Your task to perform on an android device: change notification settings in the gmail app Image 0: 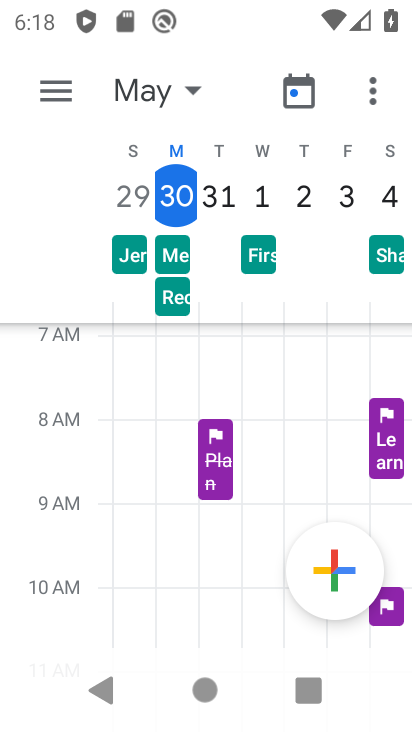
Step 0: press home button
Your task to perform on an android device: change notification settings in the gmail app Image 1: 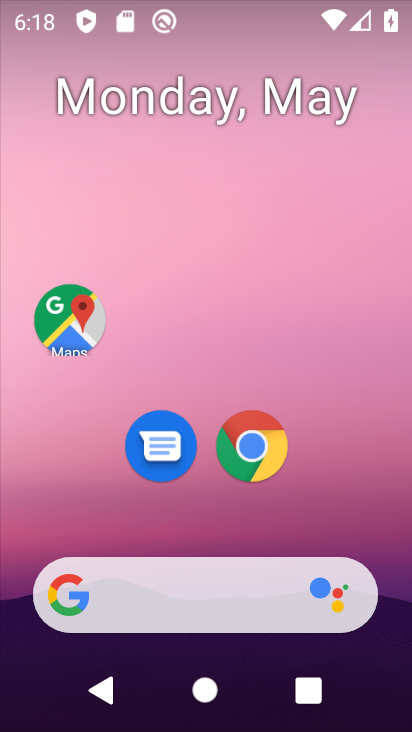
Step 1: drag from (322, 472) to (201, 33)
Your task to perform on an android device: change notification settings in the gmail app Image 2: 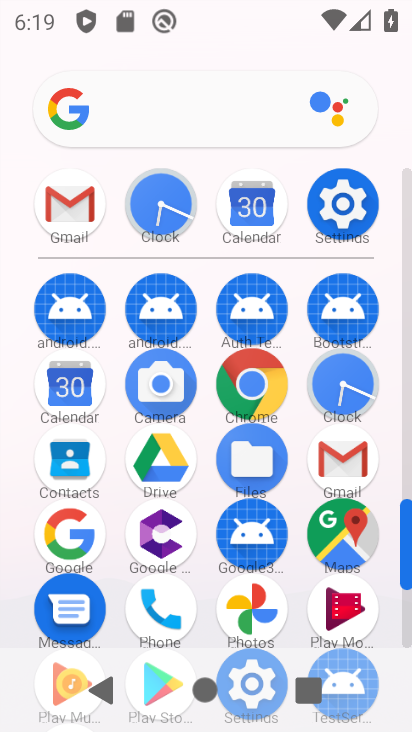
Step 2: click (73, 203)
Your task to perform on an android device: change notification settings in the gmail app Image 3: 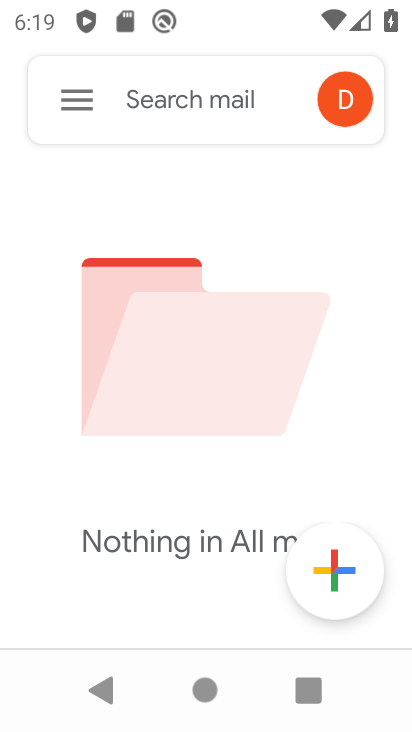
Step 3: click (64, 98)
Your task to perform on an android device: change notification settings in the gmail app Image 4: 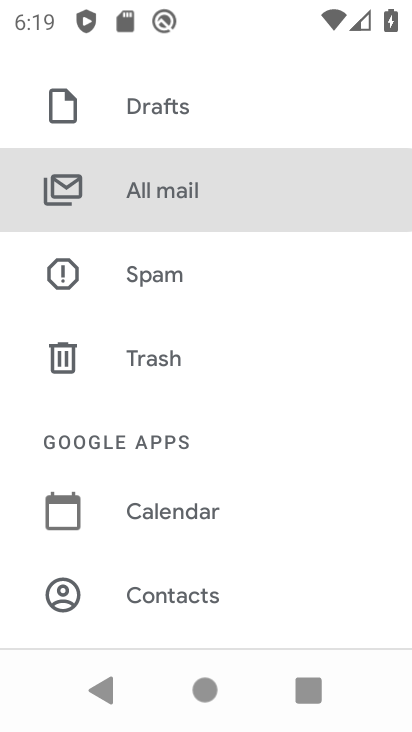
Step 4: drag from (240, 560) to (271, 135)
Your task to perform on an android device: change notification settings in the gmail app Image 5: 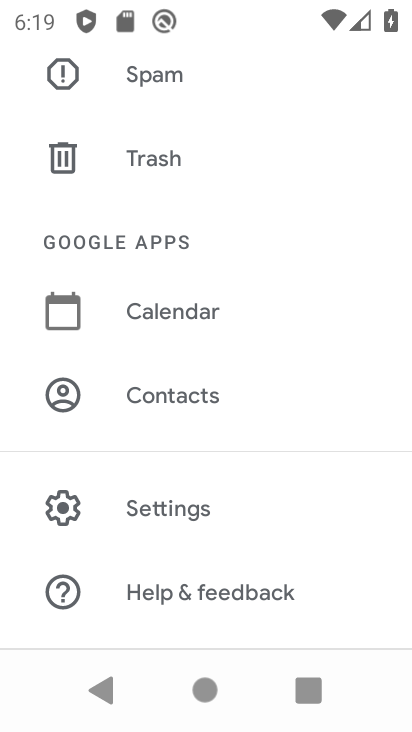
Step 5: click (160, 495)
Your task to perform on an android device: change notification settings in the gmail app Image 6: 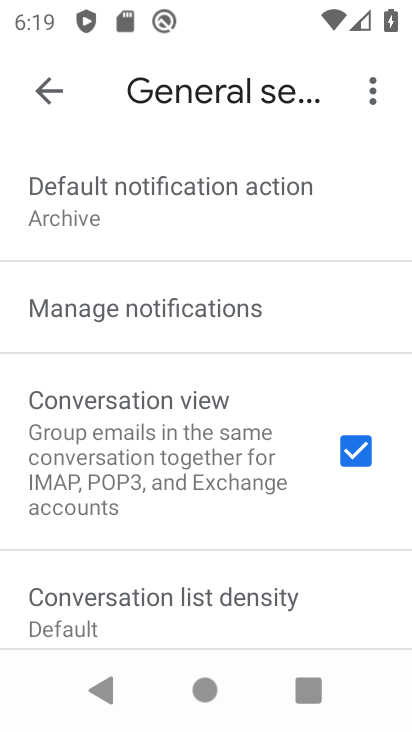
Step 6: click (116, 295)
Your task to perform on an android device: change notification settings in the gmail app Image 7: 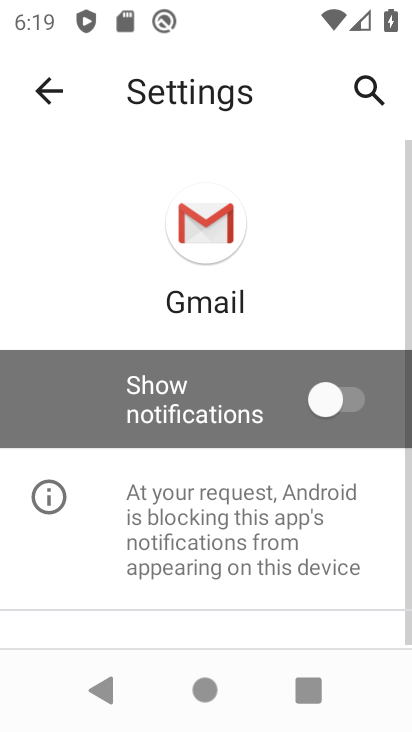
Step 7: click (339, 396)
Your task to perform on an android device: change notification settings in the gmail app Image 8: 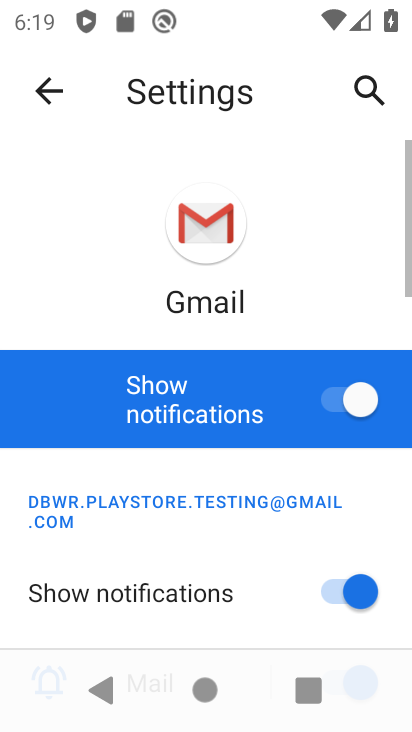
Step 8: task complete